Your task to perform on an android device: Search for sushi restaurants on Maps Image 0: 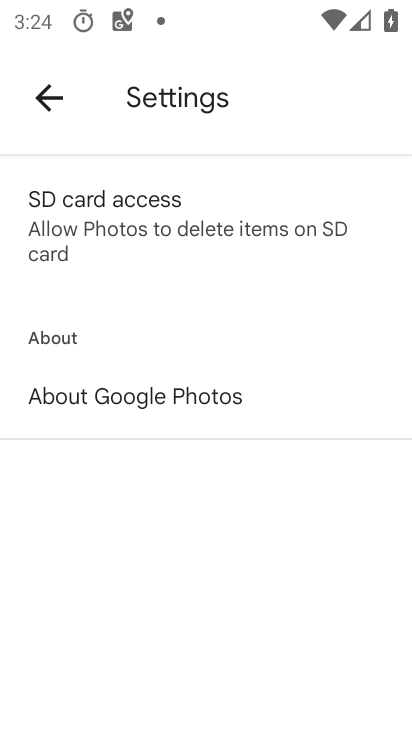
Step 0: press home button
Your task to perform on an android device: Search for sushi restaurants on Maps Image 1: 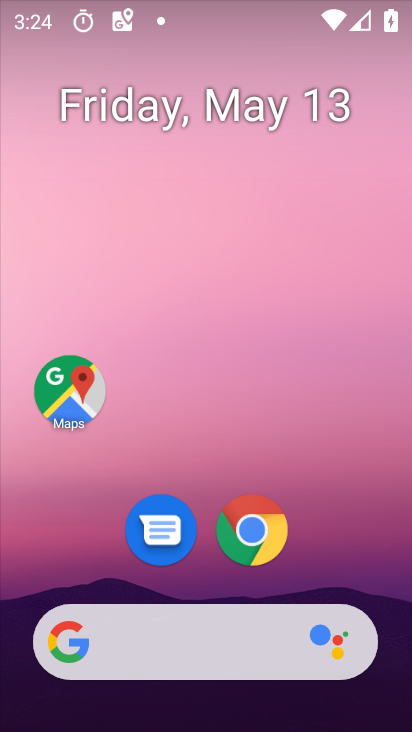
Step 1: drag from (325, 610) to (356, 189)
Your task to perform on an android device: Search for sushi restaurants on Maps Image 2: 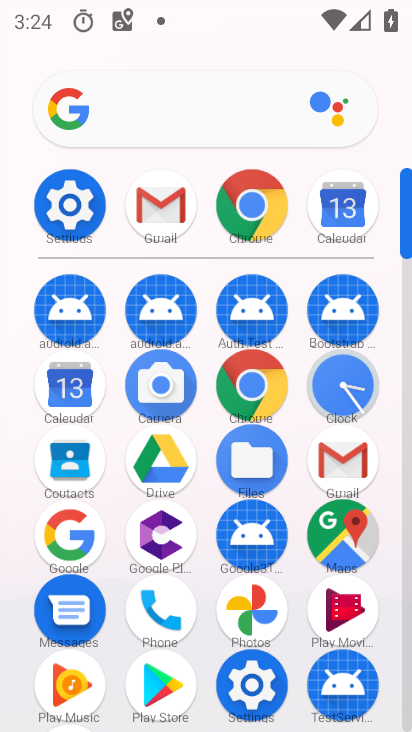
Step 2: drag from (289, 548) to (314, 263)
Your task to perform on an android device: Search for sushi restaurants on Maps Image 3: 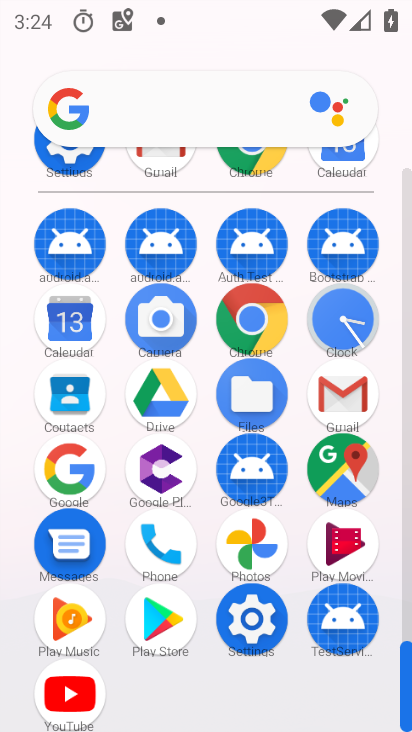
Step 3: click (334, 471)
Your task to perform on an android device: Search for sushi restaurants on Maps Image 4: 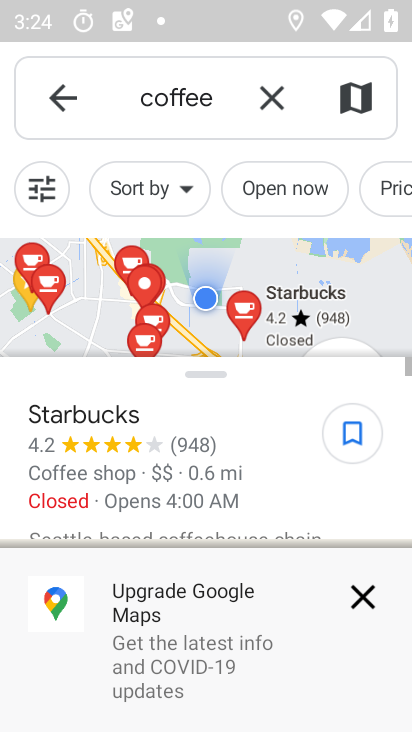
Step 4: click (152, 96)
Your task to perform on an android device: Search for sushi restaurants on Maps Image 5: 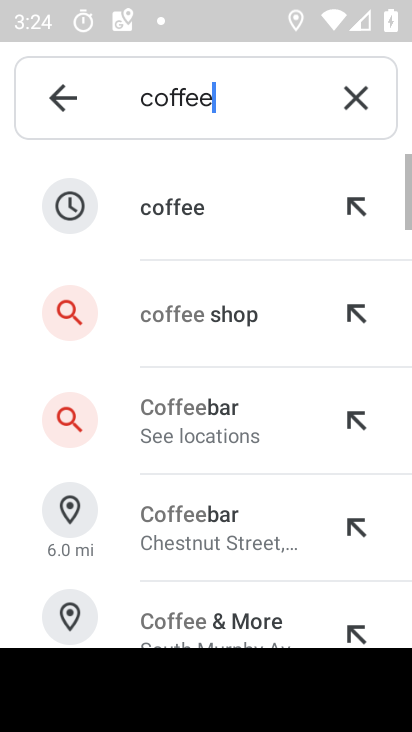
Step 5: click (357, 97)
Your task to perform on an android device: Search for sushi restaurants on Maps Image 6: 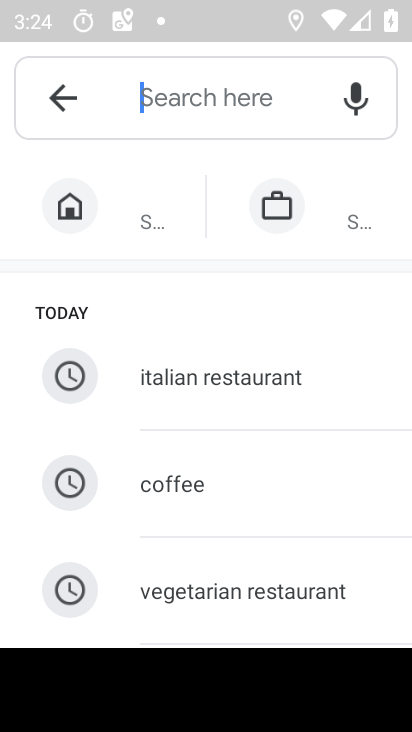
Step 6: type "sushi restaurants"
Your task to perform on an android device: Search for sushi restaurants on Maps Image 7: 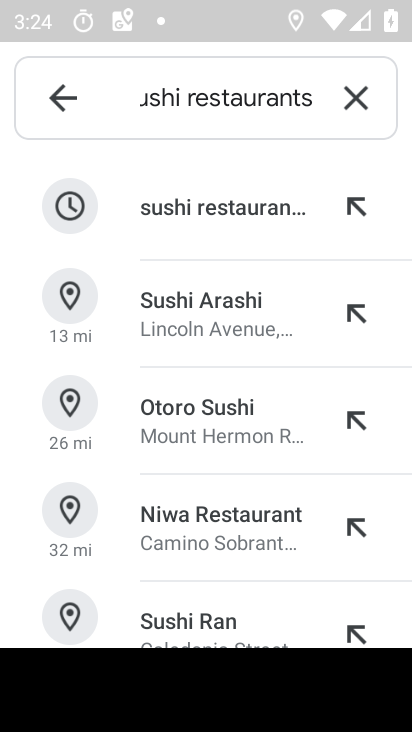
Step 7: press enter
Your task to perform on an android device: Search for sushi restaurants on Maps Image 8: 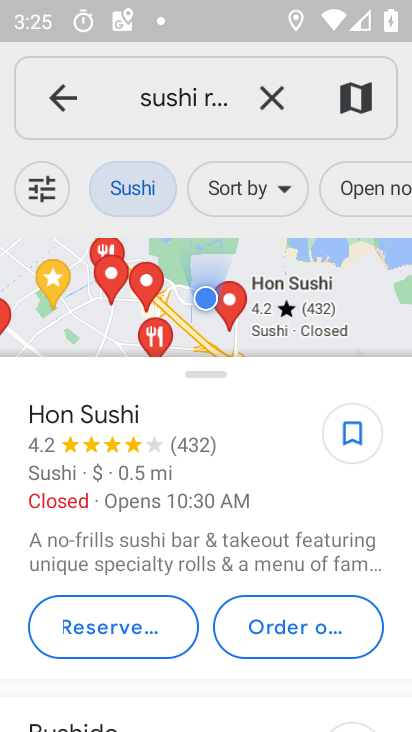
Step 8: task complete